Your task to perform on an android device: Check the settings for the Instagram app Image 0: 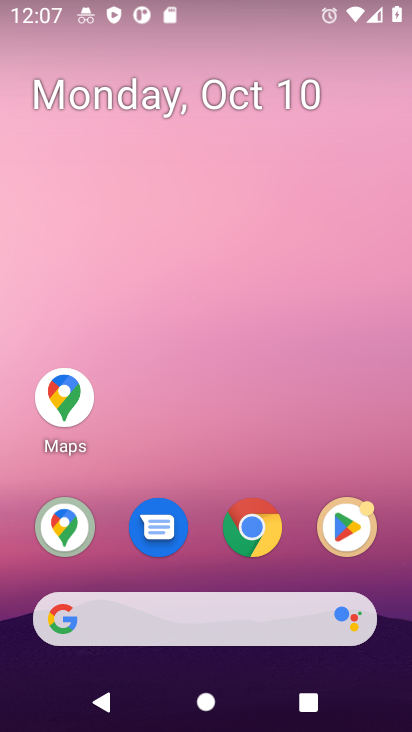
Step 0: click (344, 532)
Your task to perform on an android device: Check the settings for the Instagram app Image 1: 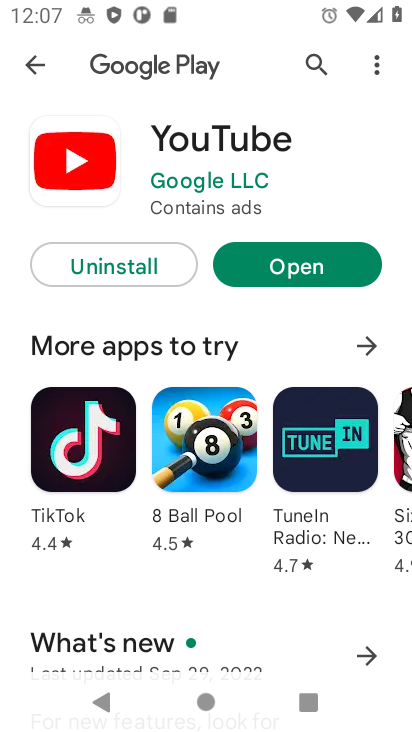
Step 1: click (28, 55)
Your task to perform on an android device: Check the settings for the Instagram app Image 2: 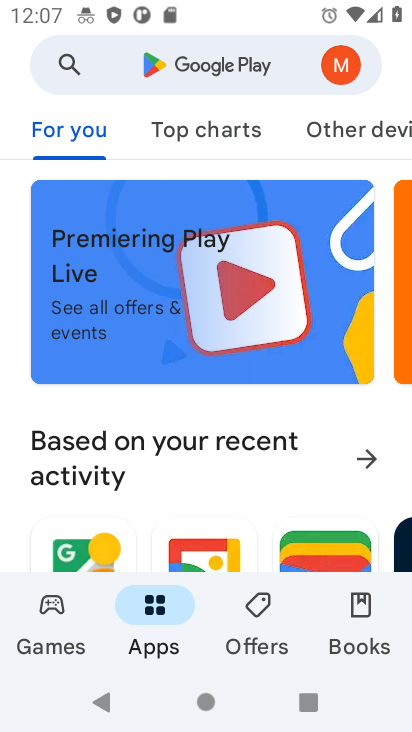
Step 2: click (211, 75)
Your task to perform on an android device: Check the settings for the Instagram app Image 3: 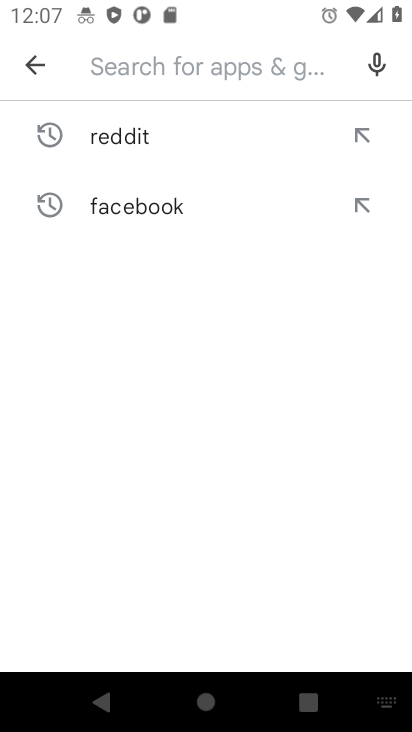
Step 3: type "instagram"
Your task to perform on an android device: Check the settings for the Instagram app Image 4: 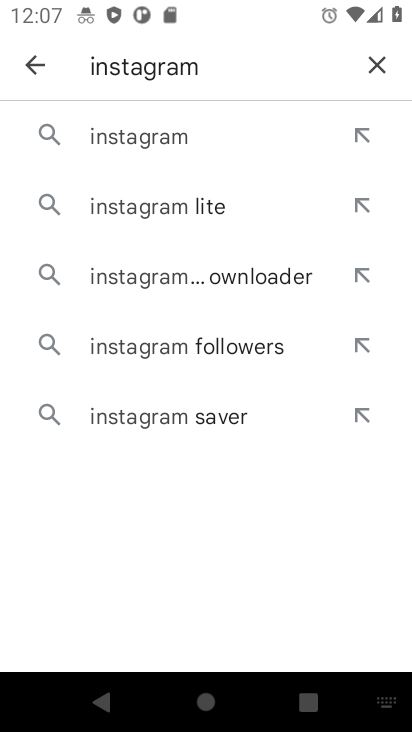
Step 4: click (191, 138)
Your task to perform on an android device: Check the settings for the Instagram app Image 5: 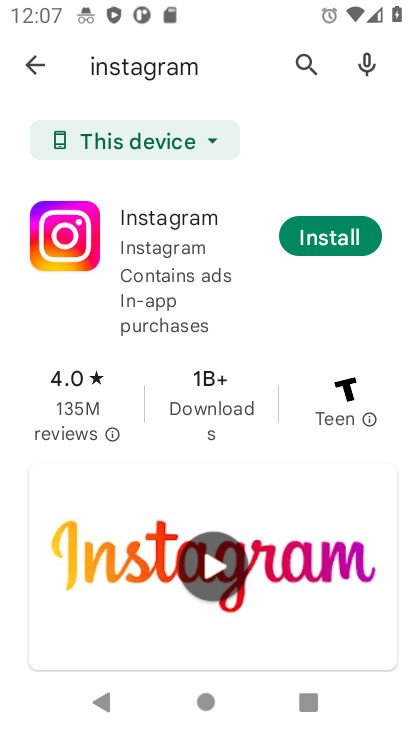
Step 5: task complete